Your task to perform on an android device: change the upload size in google photos Image 0: 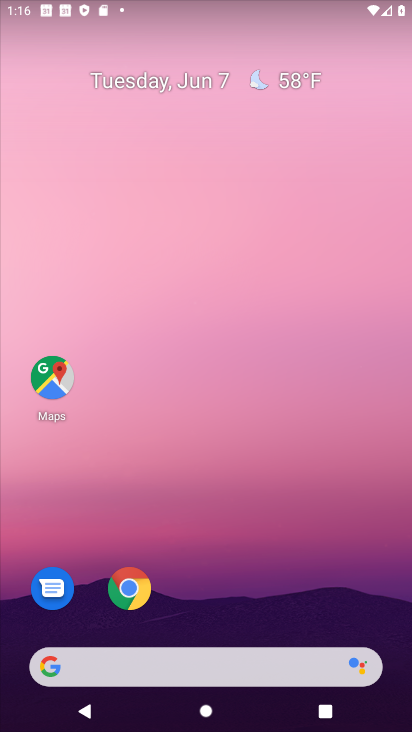
Step 0: task complete